Your task to perform on an android device: open app "Grab" (install if not already installed) and go to login screen Image 0: 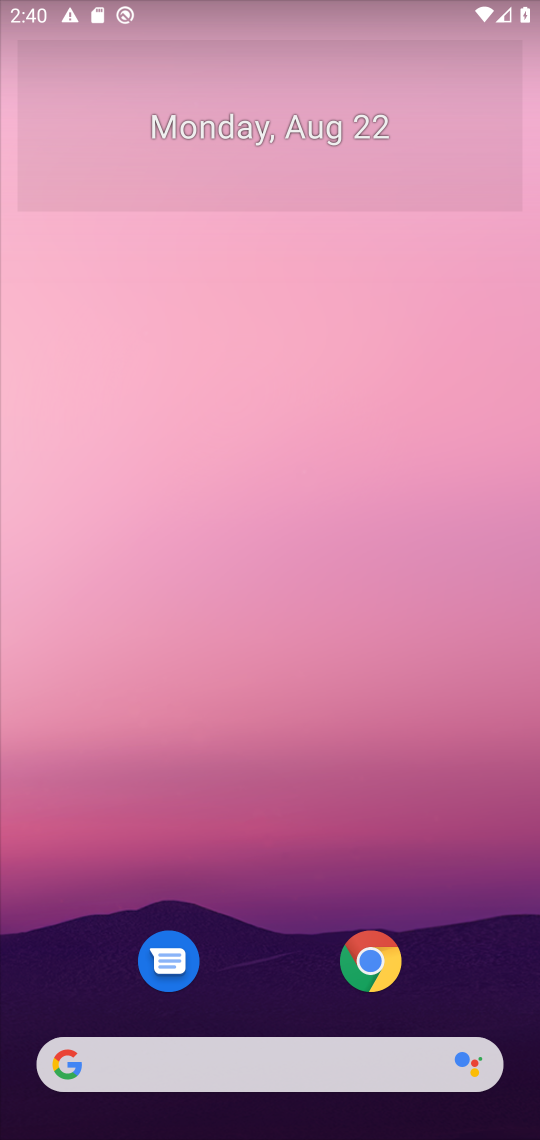
Step 0: press home button
Your task to perform on an android device: open app "Grab" (install if not already installed) and go to login screen Image 1: 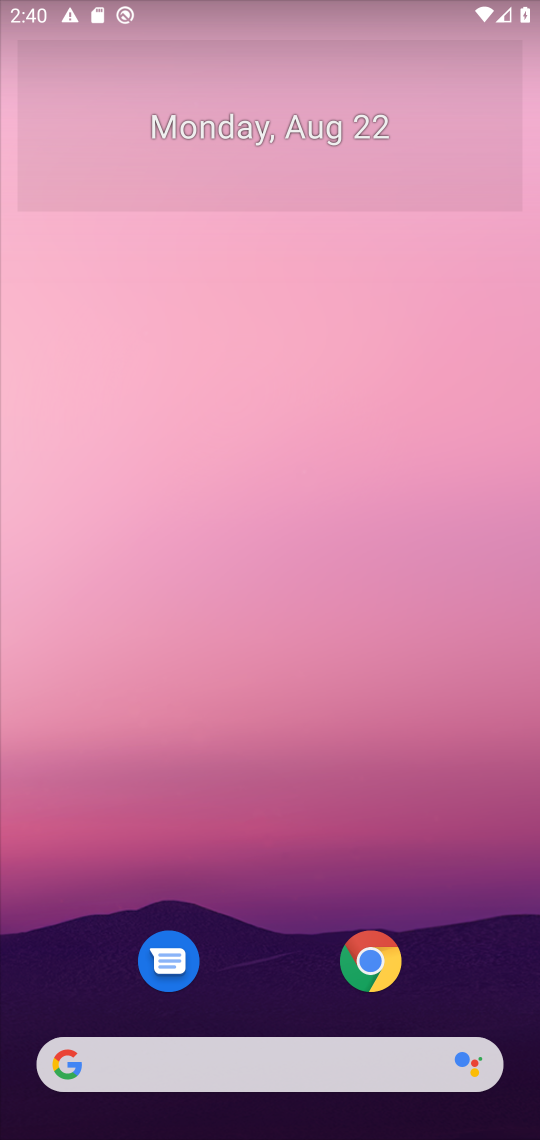
Step 1: drag from (445, 976) to (452, 219)
Your task to perform on an android device: open app "Grab" (install if not already installed) and go to login screen Image 2: 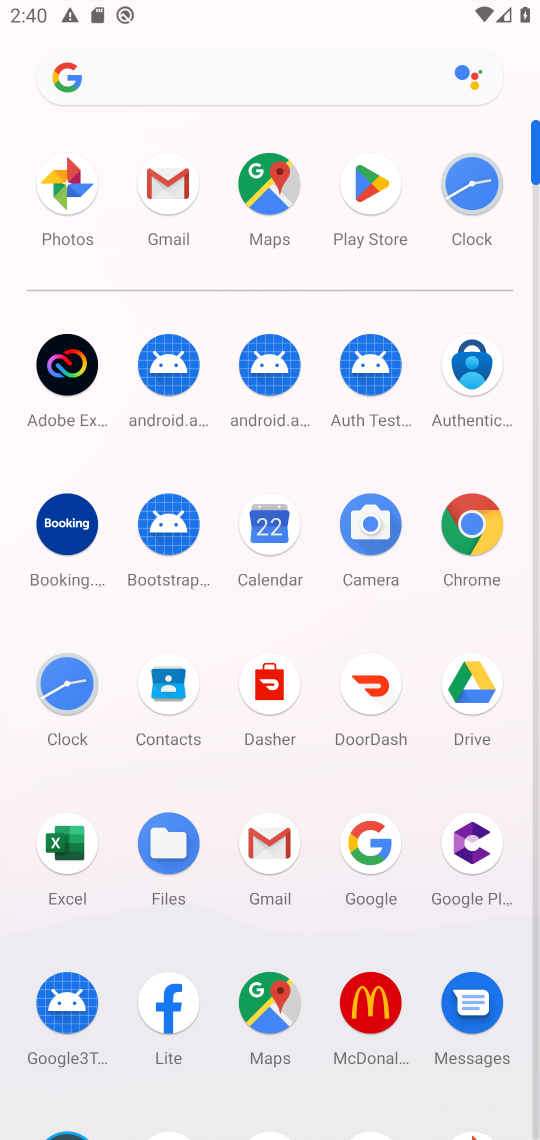
Step 2: click (360, 180)
Your task to perform on an android device: open app "Grab" (install if not already installed) and go to login screen Image 3: 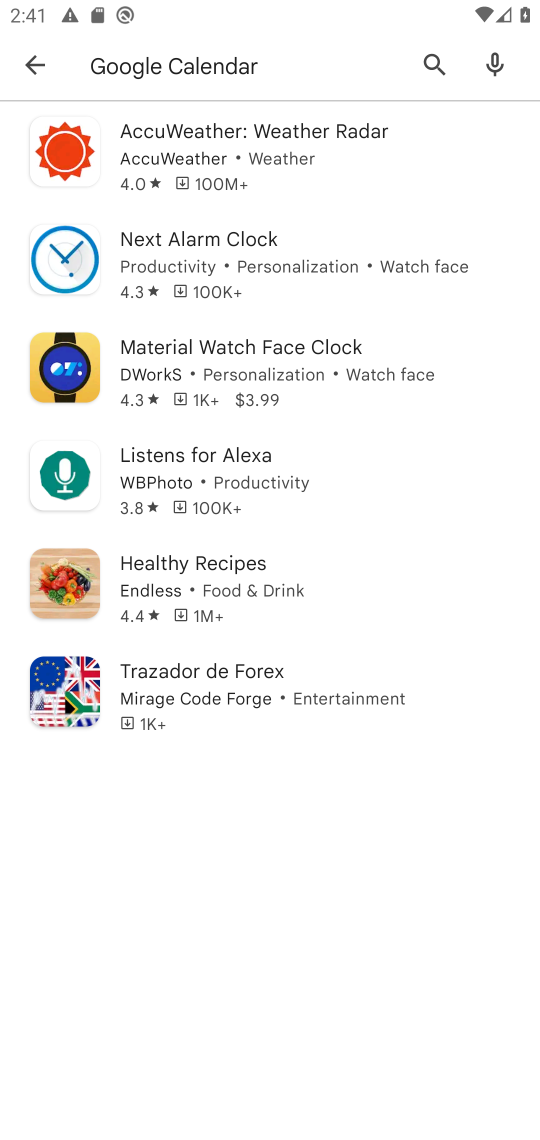
Step 3: press back button
Your task to perform on an android device: open app "Grab" (install if not already installed) and go to login screen Image 4: 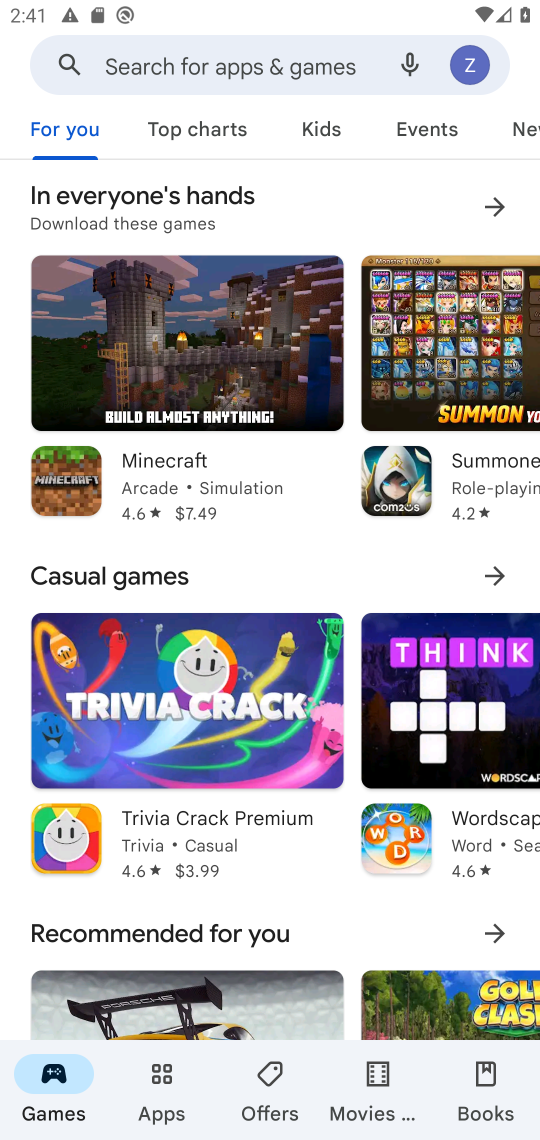
Step 4: click (217, 54)
Your task to perform on an android device: open app "Grab" (install if not already installed) and go to login screen Image 5: 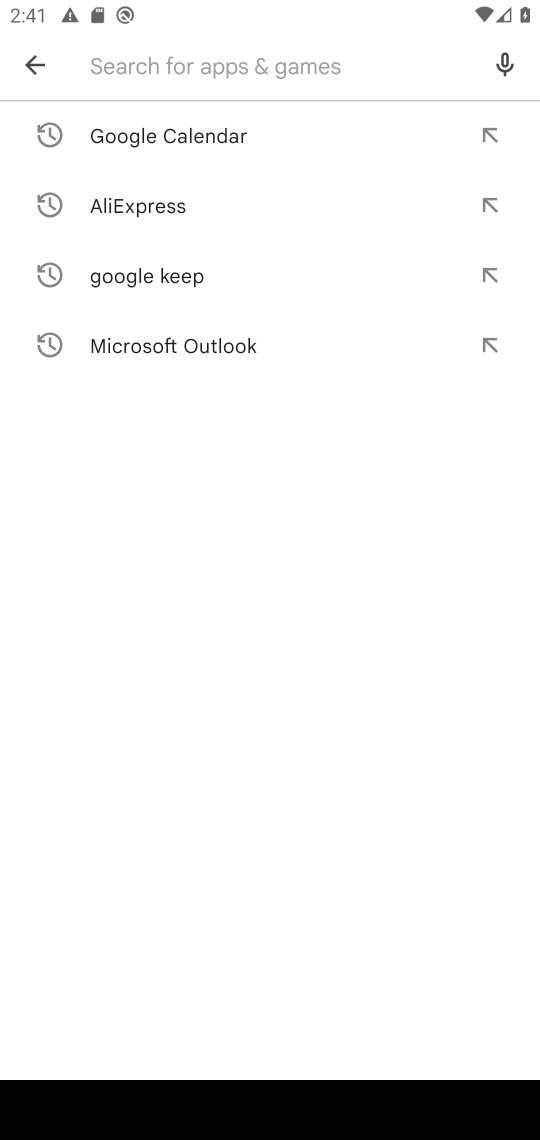
Step 5: press enter
Your task to perform on an android device: open app "Grab" (install if not already installed) and go to login screen Image 6: 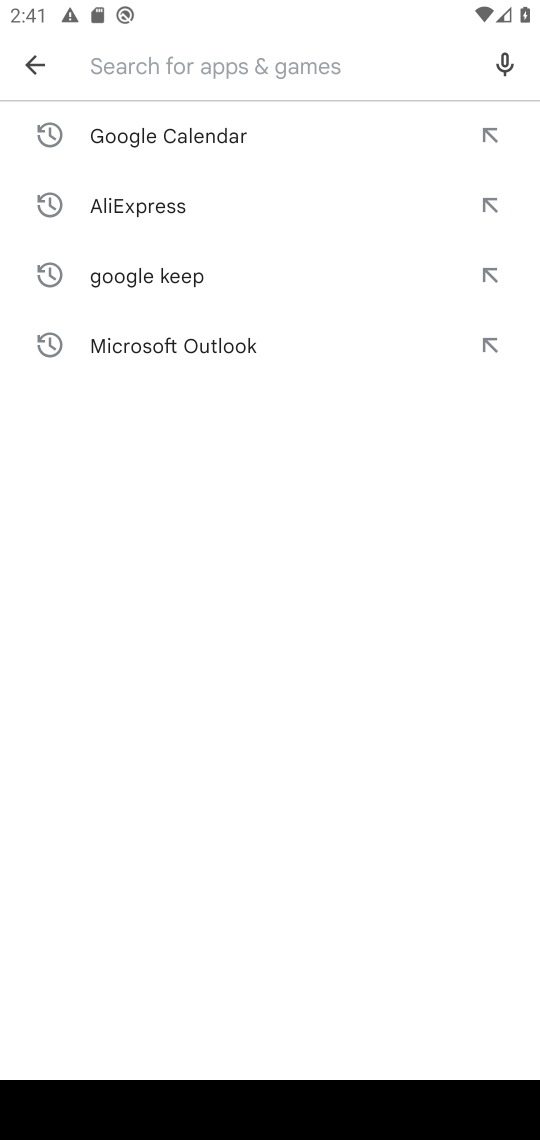
Step 6: type "grab"
Your task to perform on an android device: open app "Grab" (install if not already installed) and go to login screen Image 7: 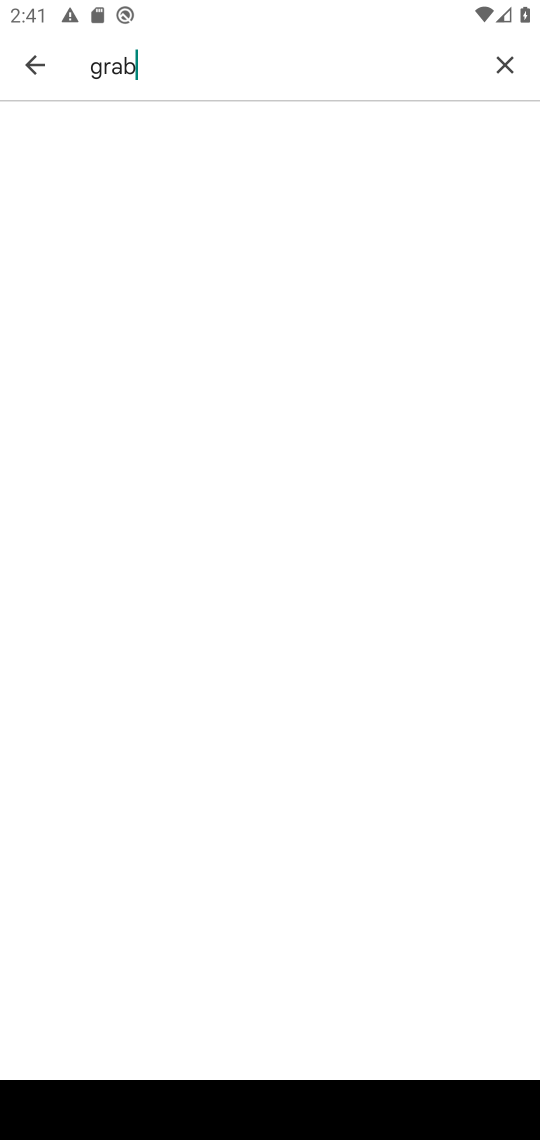
Step 7: task complete